Your task to perform on an android device: Open the map Image 0: 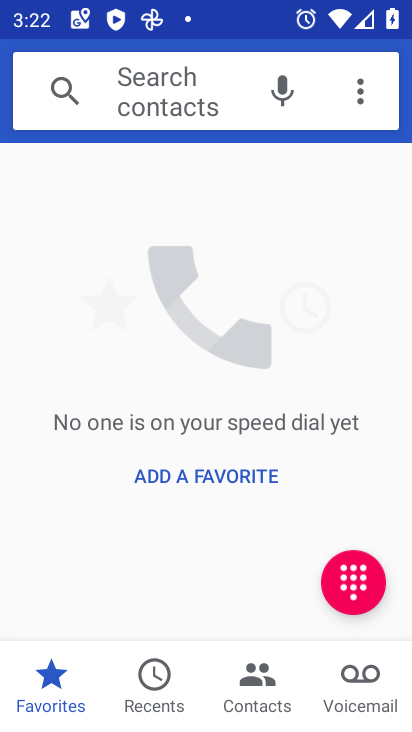
Step 0: press home button
Your task to perform on an android device: Open the map Image 1: 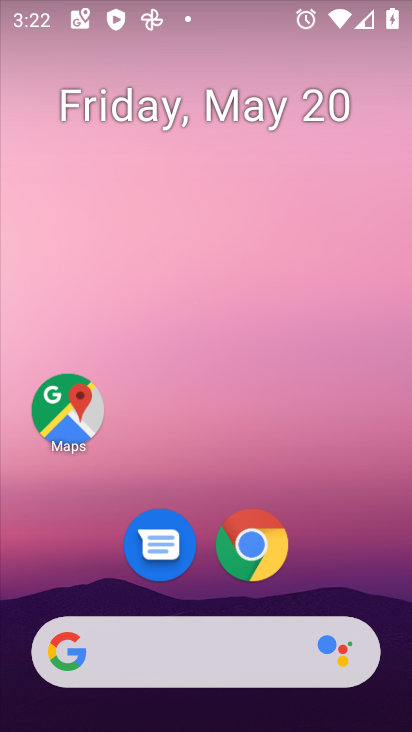
Step 1: click (76, 393)
Your task to perform on an android device: Open the map Image 2: 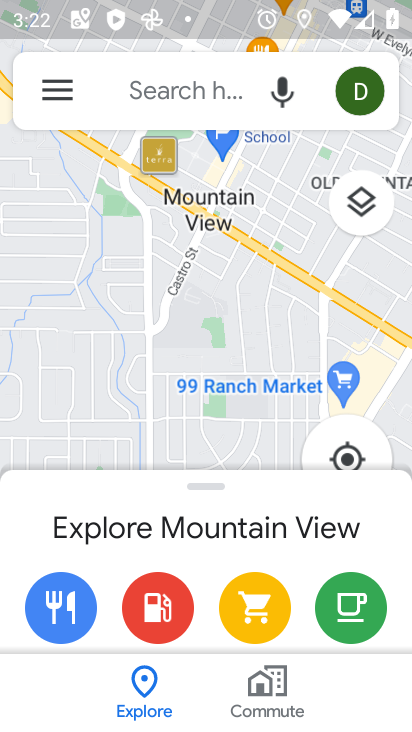
Step 2: task complete